Your task to perform on an android device: Find coffee shops on Maps Image 0: 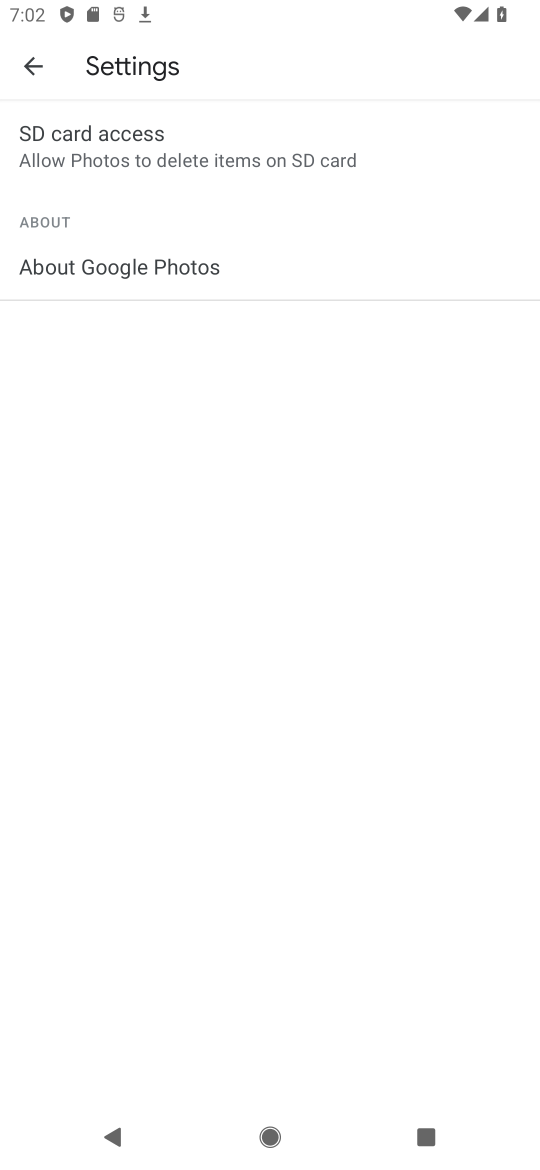
Step 0: press home button
Your task to perform on an android device: Find coffee shops on Maps Image 1: 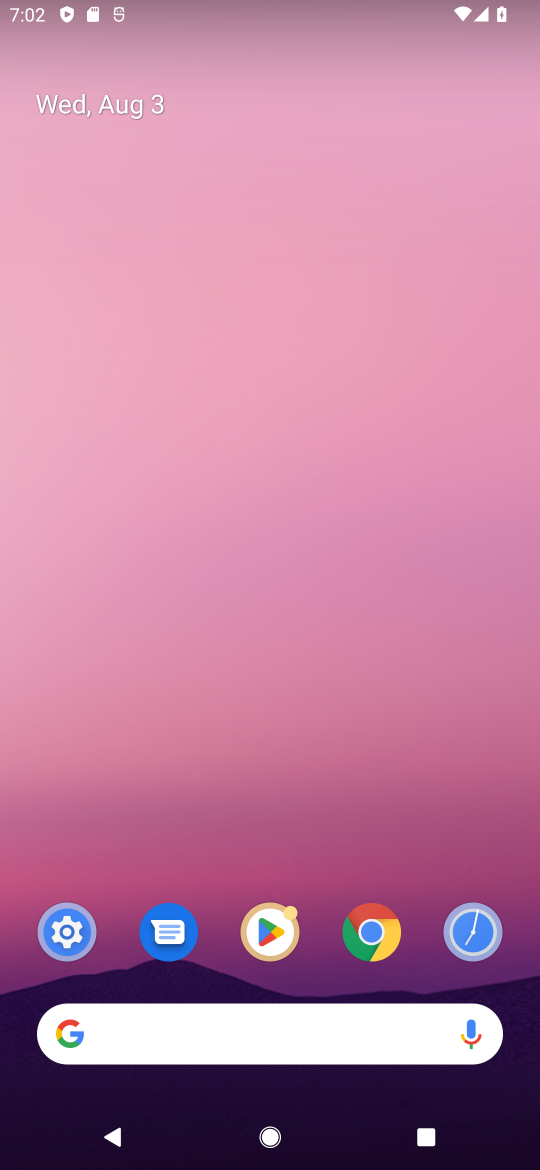
Step 1: drag from (186, 346) to (231, 80)
Your task to perform on an android device: Find coffee shops on Maps Image 2: 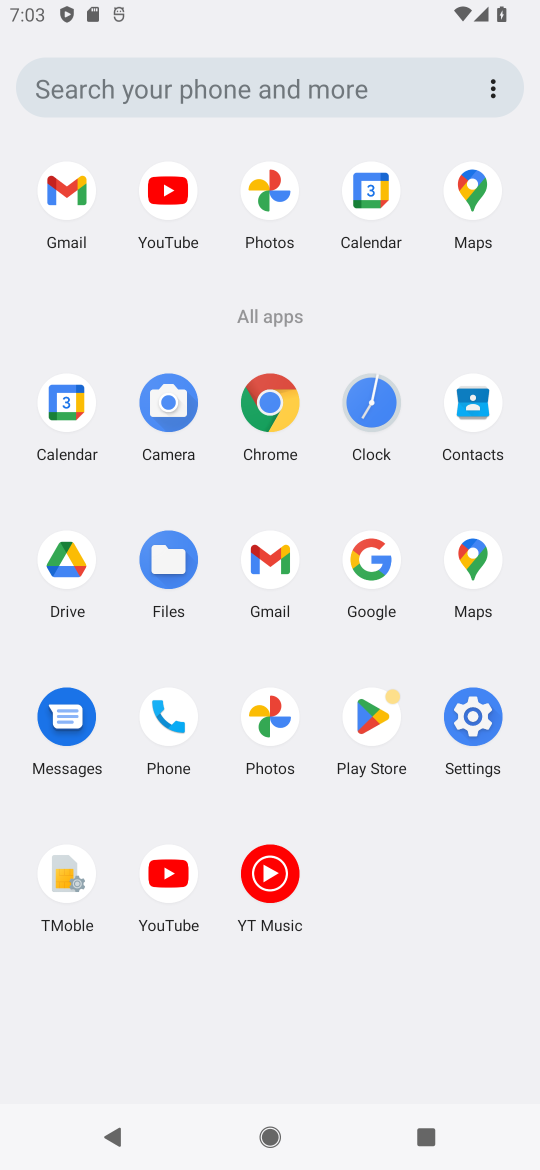
Step 2: click (465, 194)
Your task to perform on an android device: Find coffee shops on Maps Image 3: 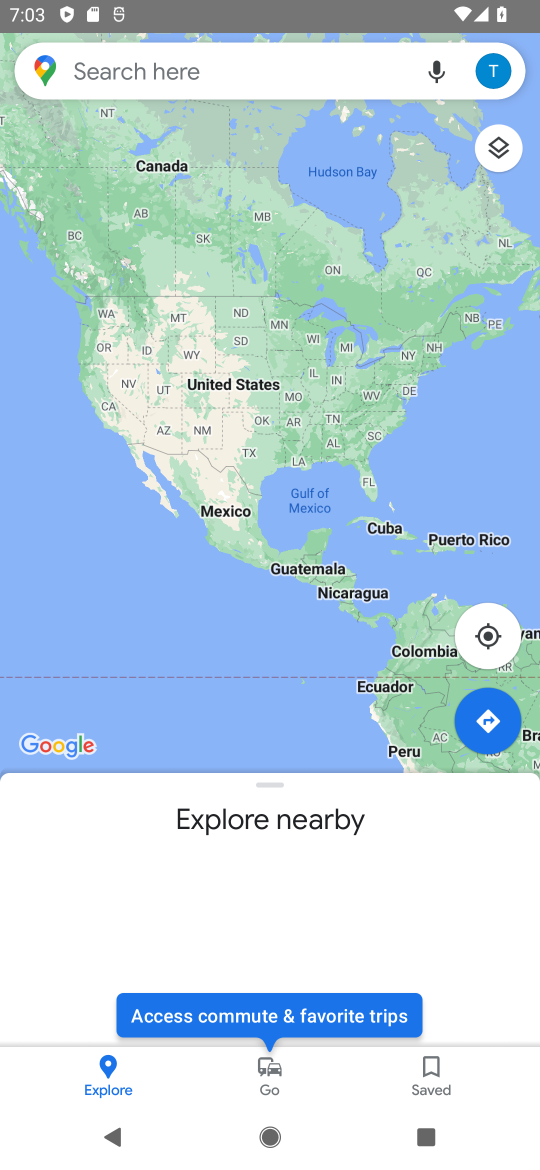
Step 3: click (203, 66)
Your task to perform on an android device: Find coffee shops on Maps Image 4: 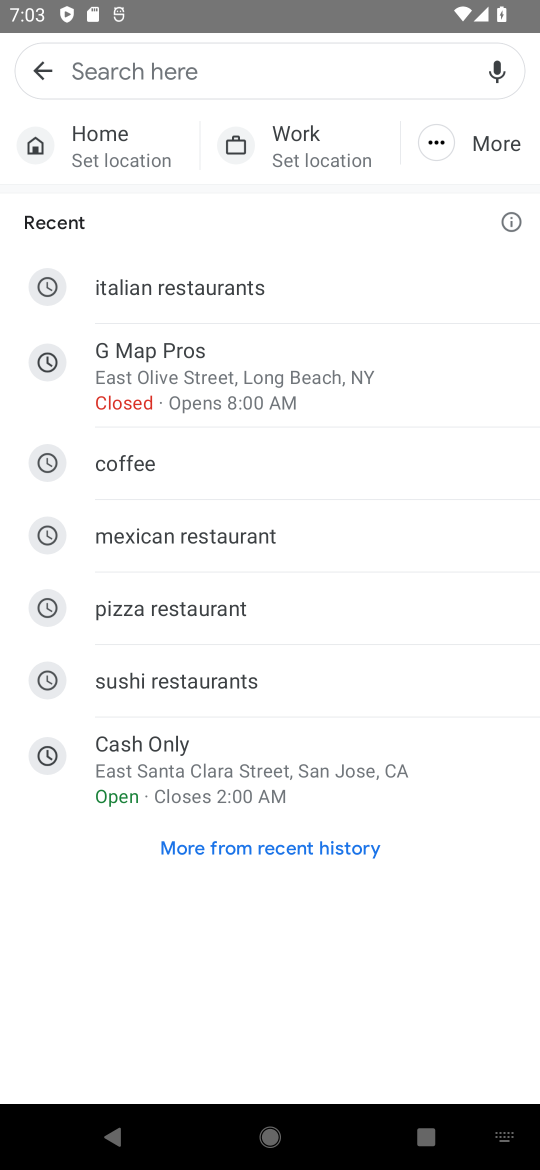
Step 4: type "coffee shop"
Your task to perform on an android device: Find coffee shops on Maps Image 5: 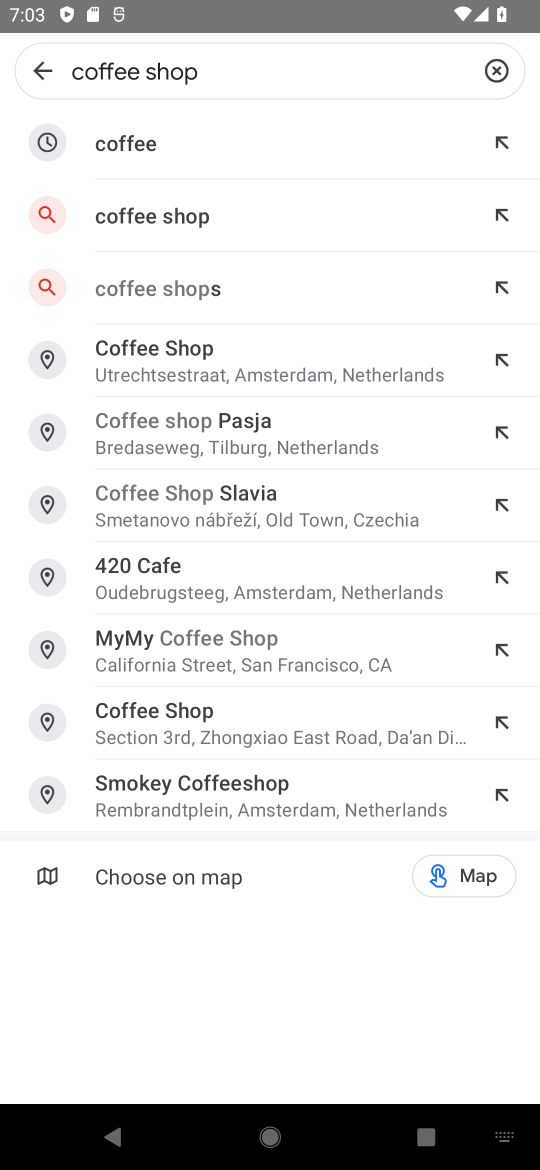
Step 5: click (212, 234)
Your task to perform on an android device: Find coffee shops on Maps Image 6: 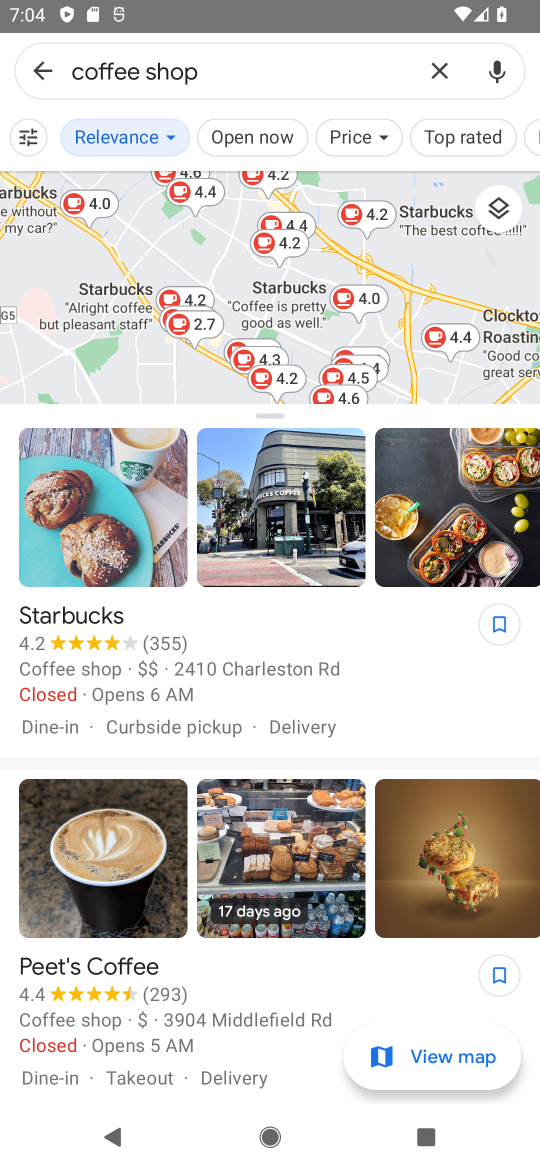
Step 6: task complete